Your task to perform on an android device: Go to Amazon Image 0: 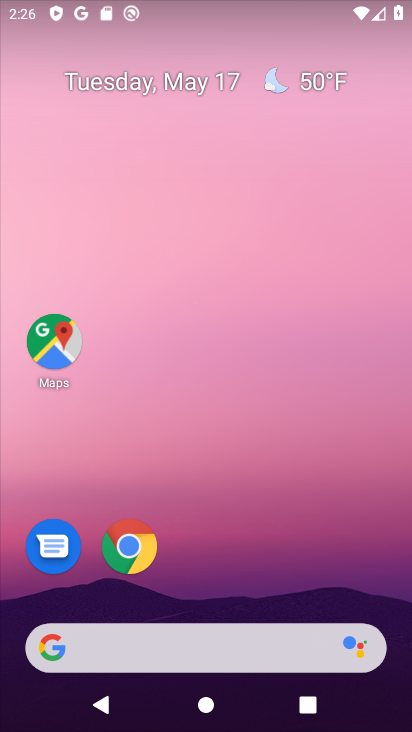
Step 0: click (126, 550)
Your task to perform on an android device: Go to Amazon Image 1: 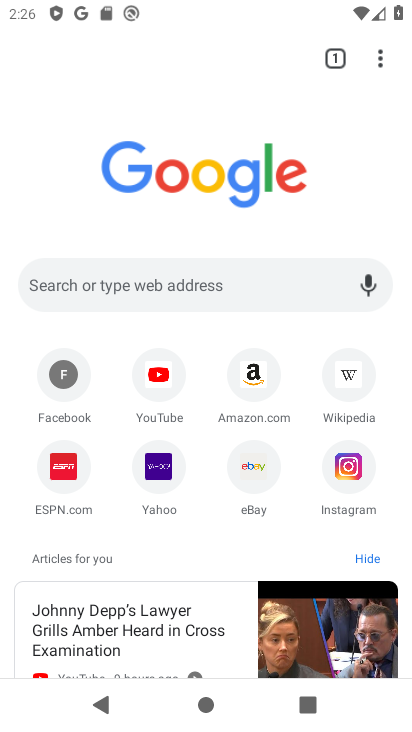
Step 1: click (251, 387)
Your task to perform on an android device: Go to Amazon Image 2: 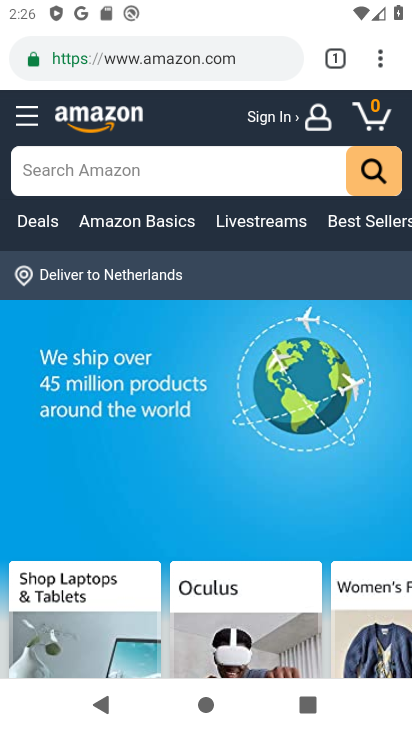
Step 2: task complete